Your task to perform on an android device: toggle airplane mode Image 0: 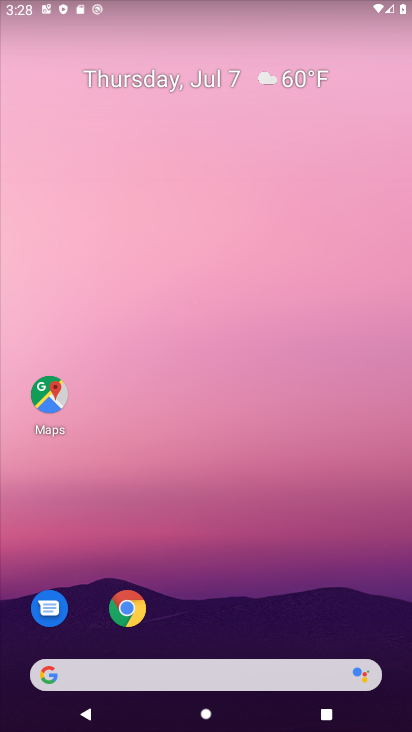
Step 0: drag from (203, 667) to (226, 256)
Your task to perform on an android device: toggle airplane mode Image 1: 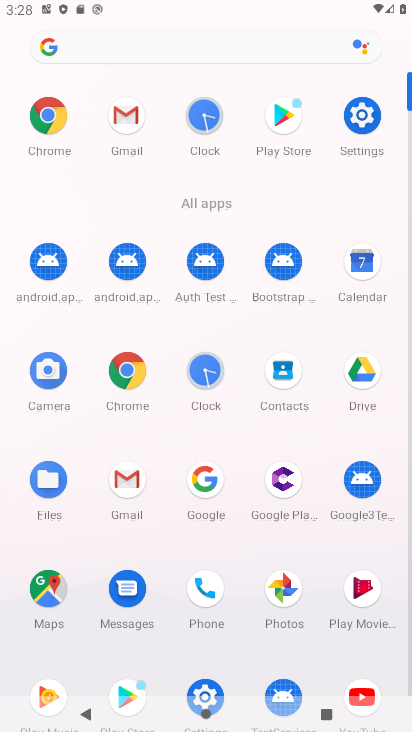
Step 1: click (365, 104)
Your task to perform on an android device: toggle airplane mode Image 2: 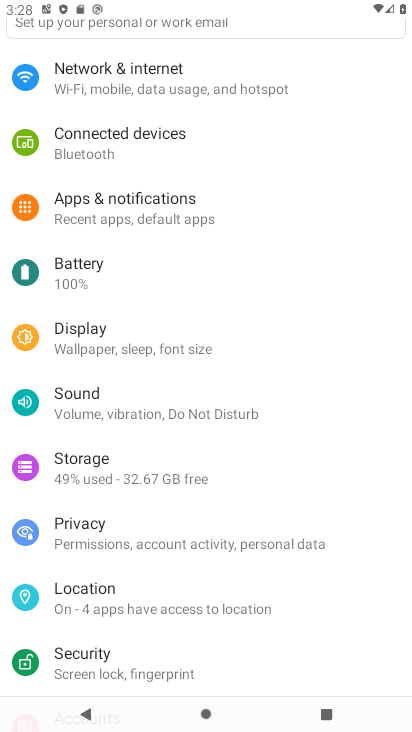
Step 2: click (137, 84)
Your task to perform on an android device: toggle airplane mode Image 3: 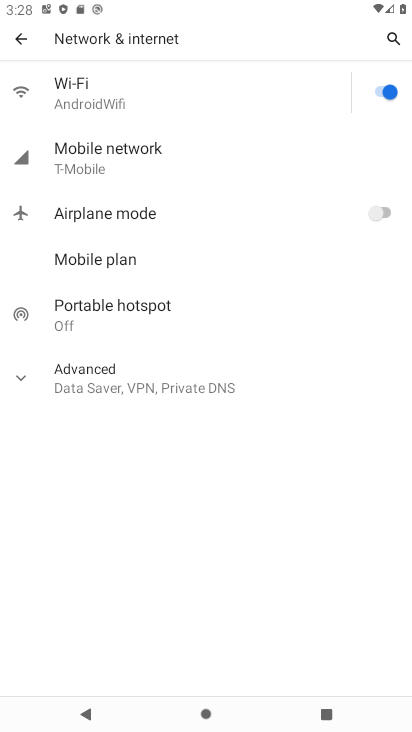
Step 3: click (387, 212)
Your task to perform on an android device: toggle airplane mode Image 4: 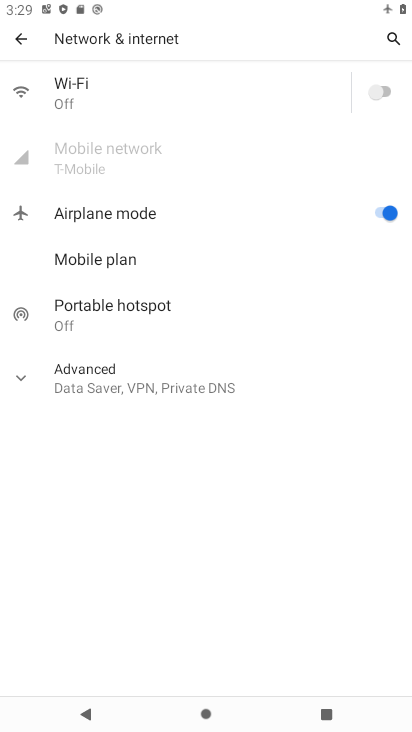
Step 4: click (387, 212)
Your task to perform on an android device: toggle airplane mode Image 5: 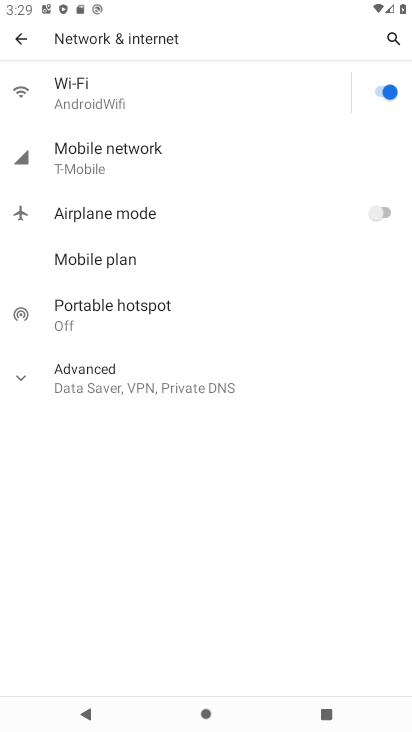
Step 5: click (378, 213)
Your task to perform on an android device: toggle airplane mode Image 6: 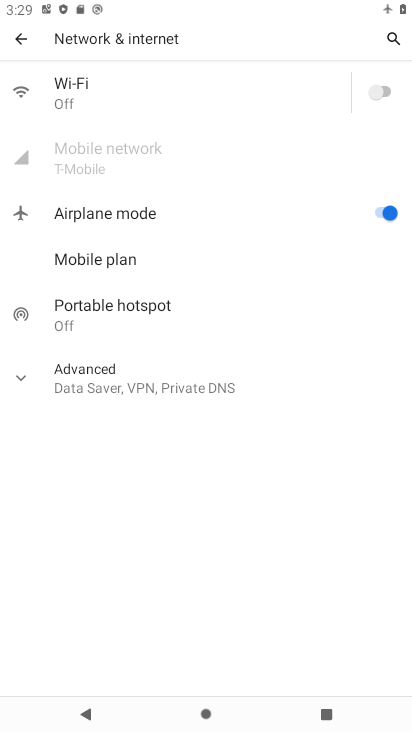
Step 6: task complete